Your task to perform on an android device: Clear the shopping cart on newegg. Image 0: 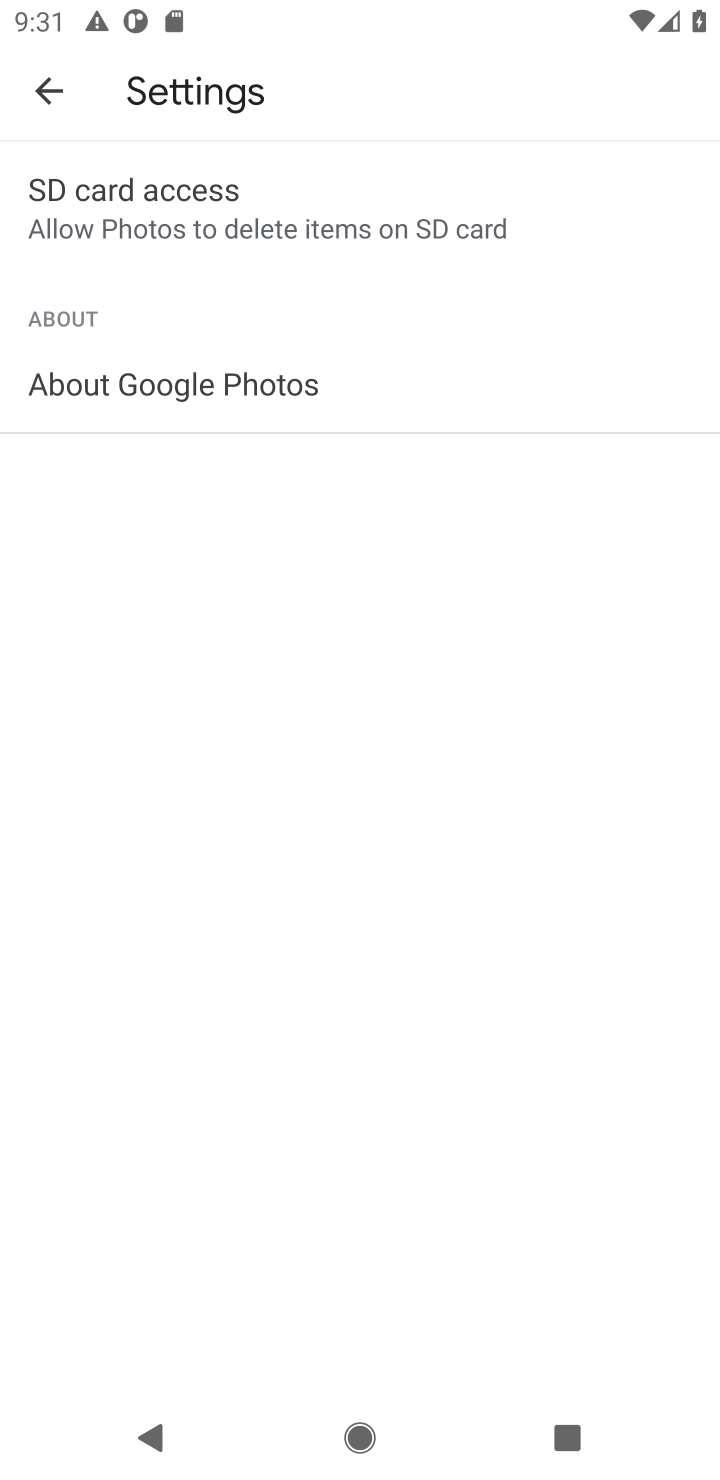
Step 0: press home button
Your task to perform on an android device: Clear the shopping cart on newegg. Image 1: 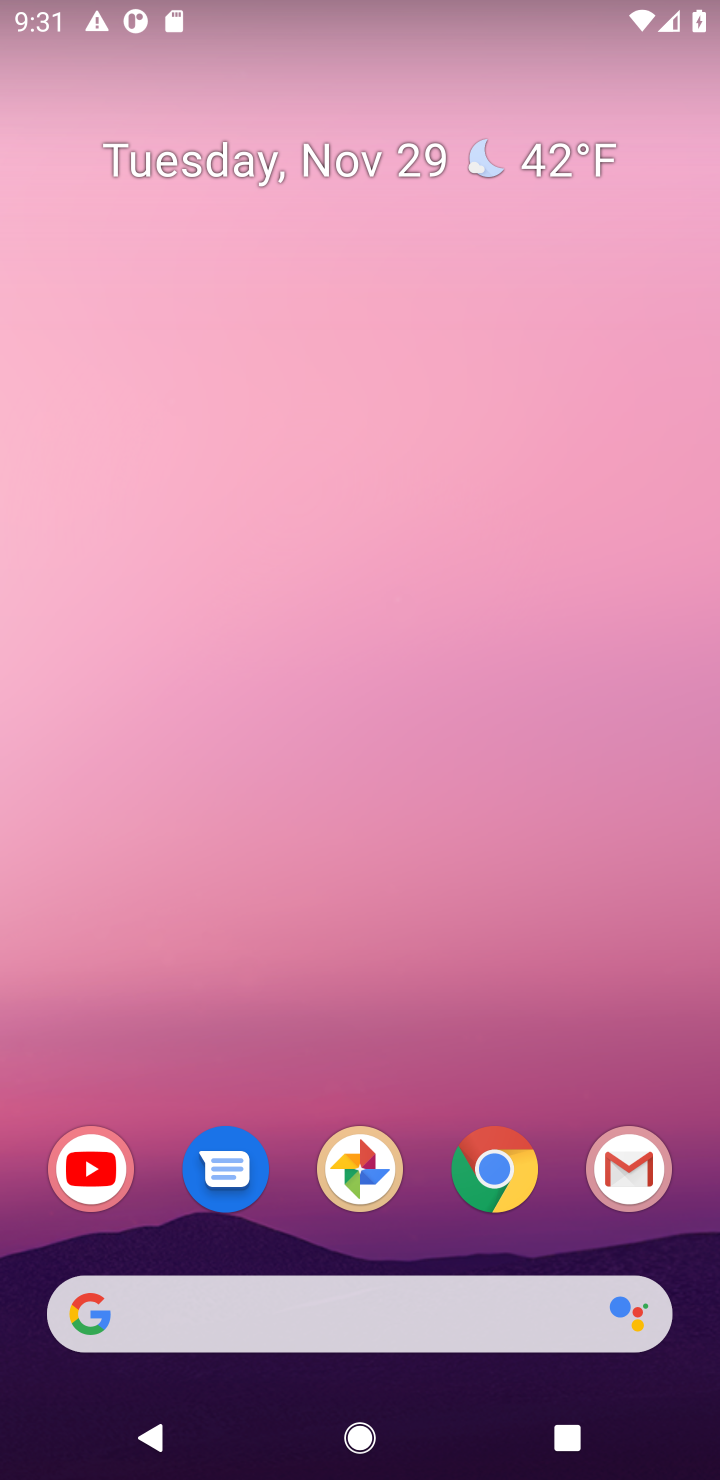
Step 1: click (368, 1317)
Your task to perform on an android device: Clear the shopping cart on newegg. Image 2: 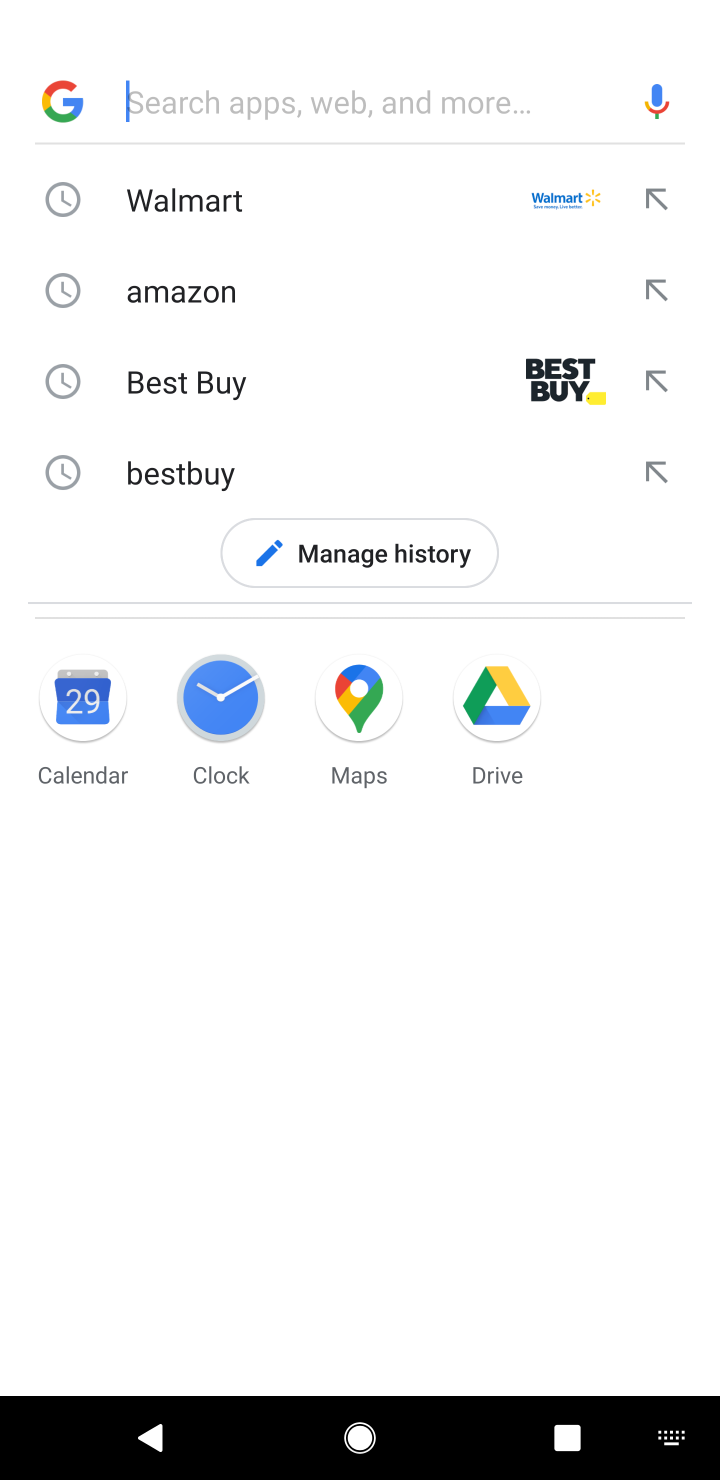
Step 2: task complete